Your task to perform on an android device: set default search engine in the chrome app Image 0: 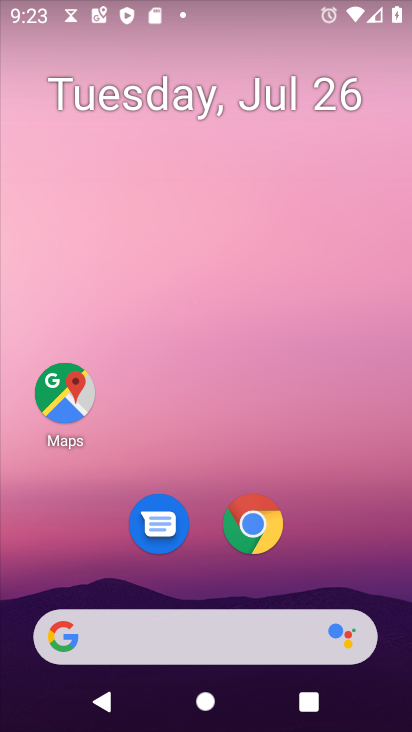
Step 0: click (247, 533)
Your task to perform on an android device: set default search engine in the chrome app Image 1: 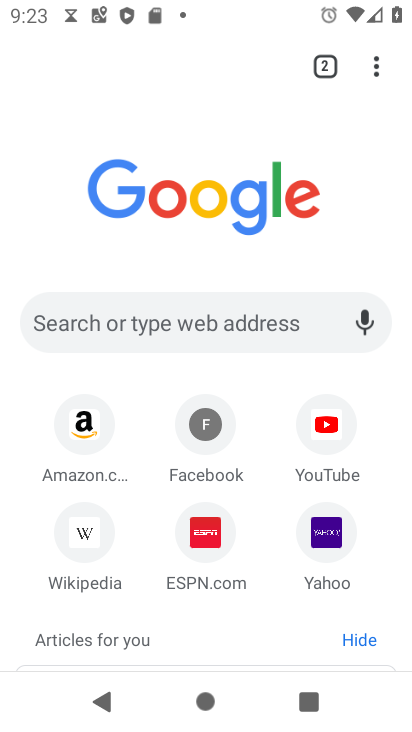
Step 1: drag from (375, 68) to (165, 559)
Your task to perform on an android device: set default search engine in the chrome app Image 2: 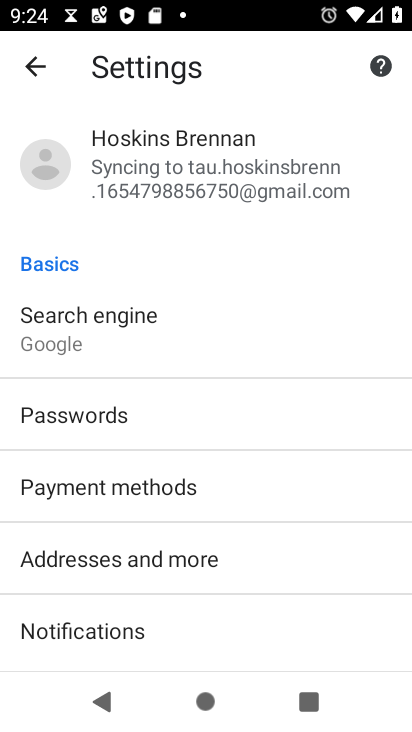
Step 2: click (83, 334)
Your task to perform on an android device: set default search engine in the chrome app Image 3: 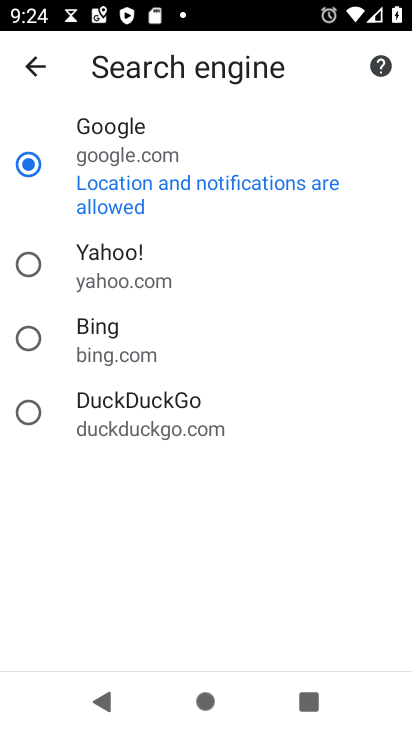
Step 3: click (34, 264)
Your task to perform on an android device: set default search engine in the chrome app Image 4: 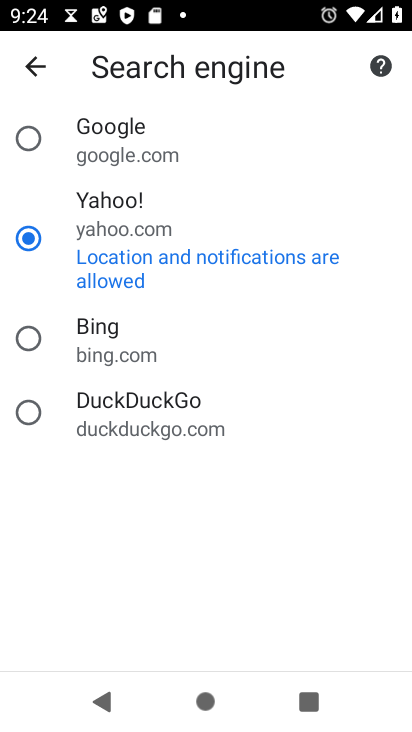
Step 4: task complete